Your task to perform on an android device: Search for pizza restaurants on Maps Image 0: 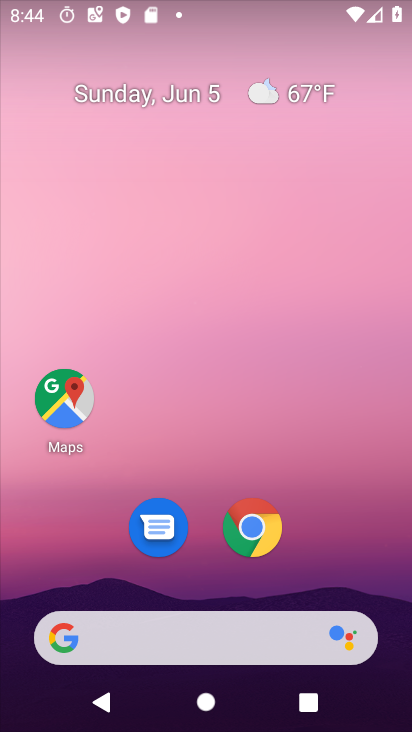
Step 0: drag from (236, 729) to (237, 33)
Your task to perform on an android device: Search for pizza restaurants on Maps Image 1: 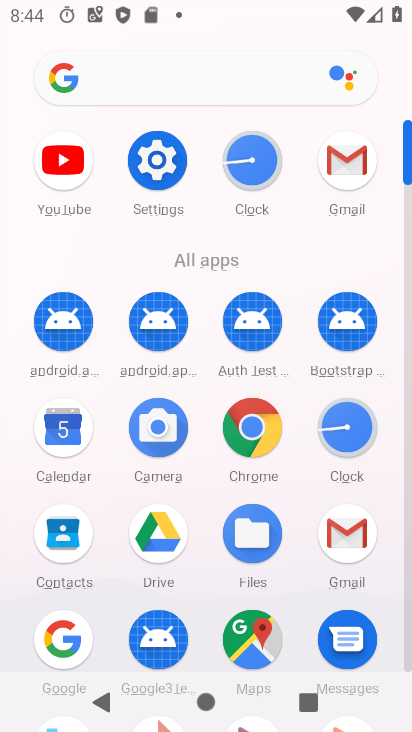
Step 1: click (249, 634)
Your task to perform on an android device: Search for pizza restaurants on Maps Image 2: 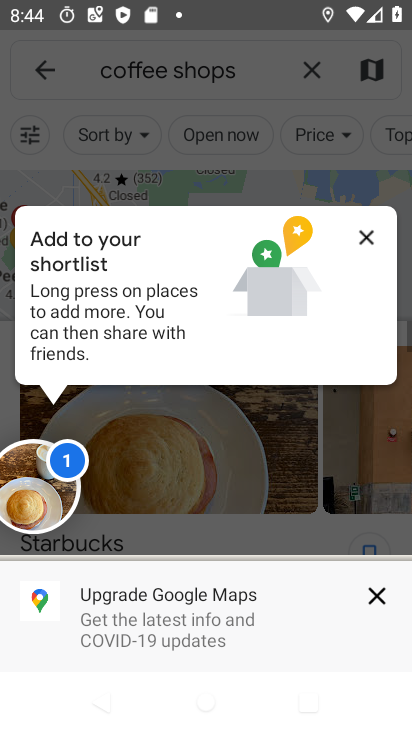
Step 2: click (374, 589)
Your task to perform on an android device: Search for pizza restaurants on Maps Image 3: 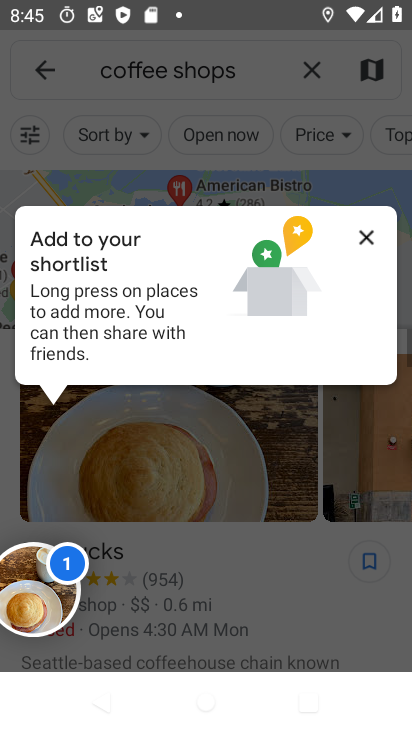
Step 3: click (366, 234)
Your task to perform on an android device: Search for pizza restaurants on Maps Image 4: 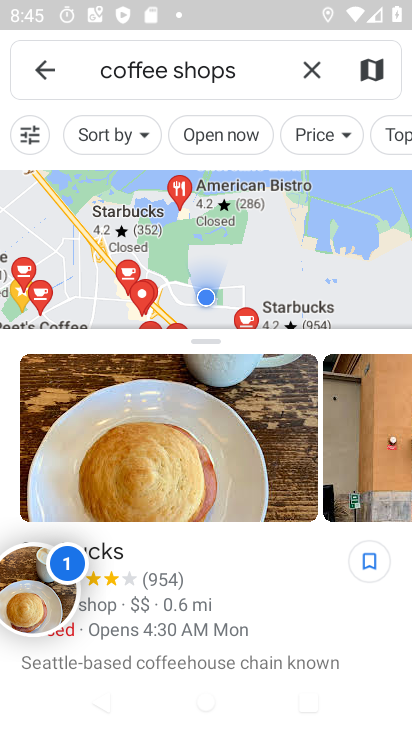
Step 4: click (312, 72)
Your task to perform on an android device: Search for pizza restaurants on Maps Image 5: 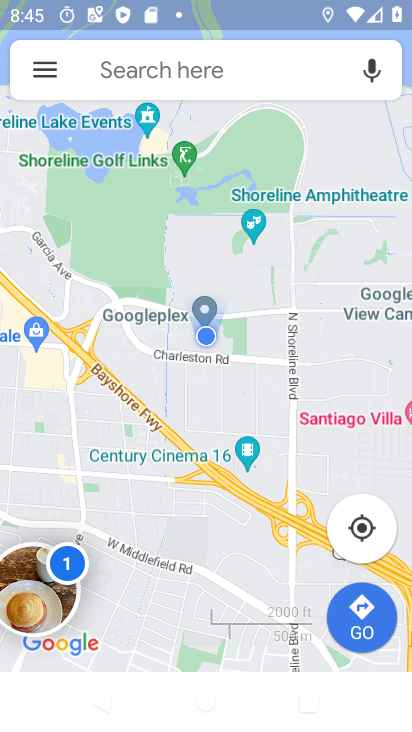
Step 5: click (194, 66)
Your task to perform on an android device: Search for pizza restaurants on Maps Image 6: 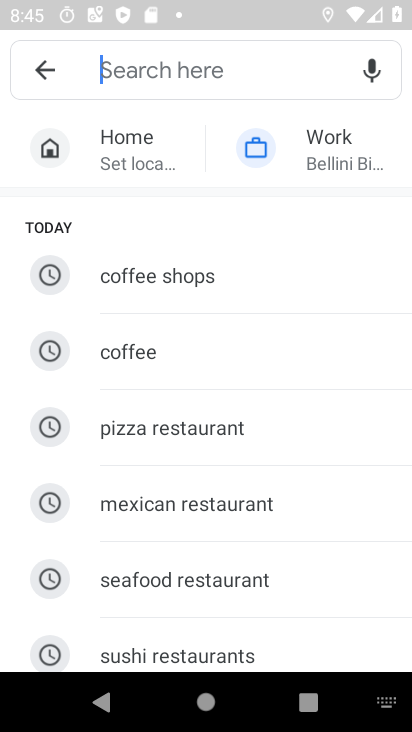
Step 6: type "pizza restaurants"
Your task to perform on an android device: Search for pizza restaurants on Maps Image 7: 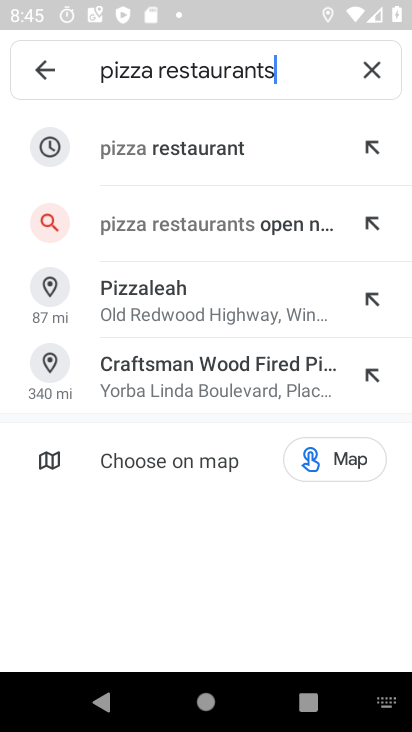
Step 7: click (175, 149)
Your task to perform on an android device: Search for pizza restaurants on Maps Image 8: 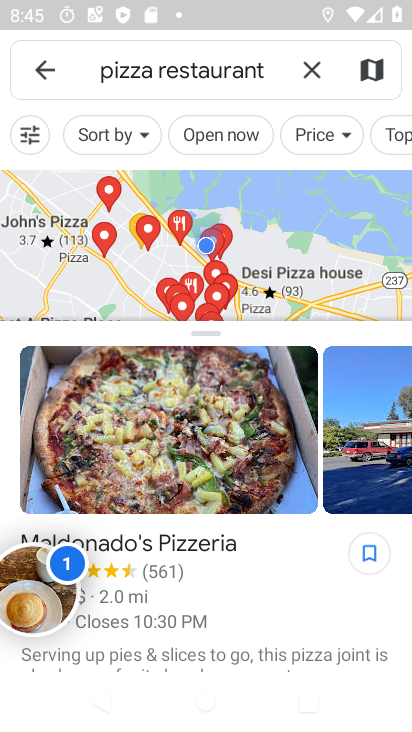
Step 8: task complete